Your task to perform on an android device: Add "macbook pro 15 inch" to the cart on walmart, then select checkout. Image 0: 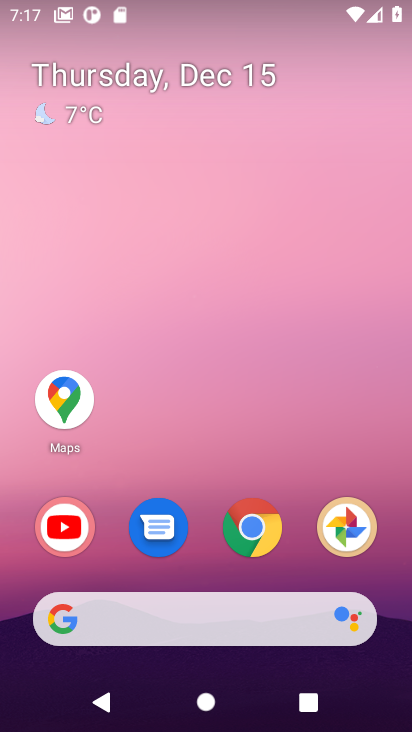
Step 0: click (255, 548)
Your task to perform on an android device: Add "macbook pro 15 inch" to the cart on walmart, then select checkout. Image 1: 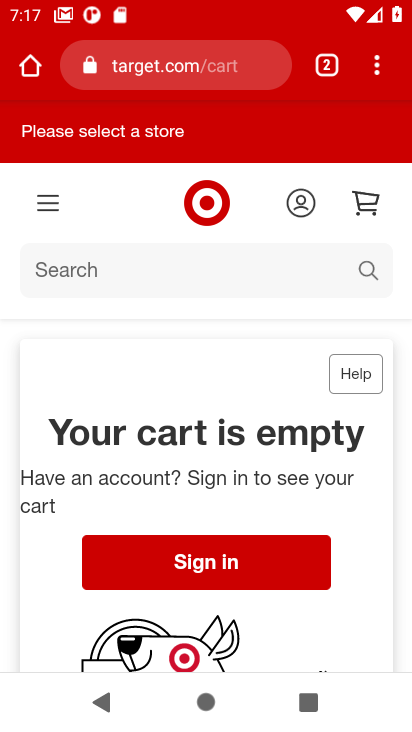
Step 1: click (193, 85)
Your task to perform on an android device: Add "macbook pro 15 inch" to the cart on walmart, then select checkout. Image 2: 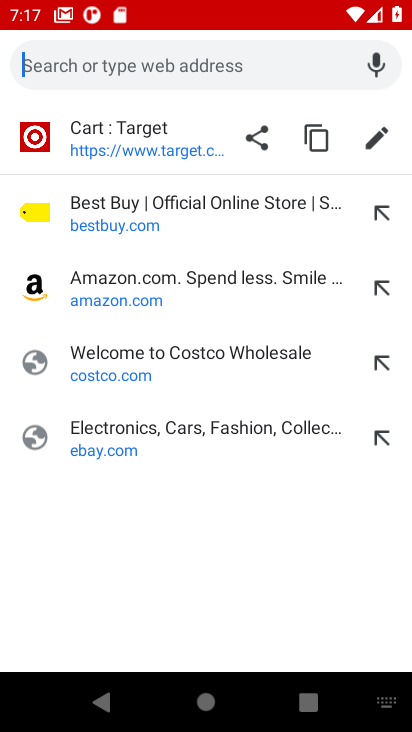
Step 2: type "walmart"
Your task to perform on an android device: Add "macbook pro 15 inch" to the cart on walmart, then select checkout. Image 3: 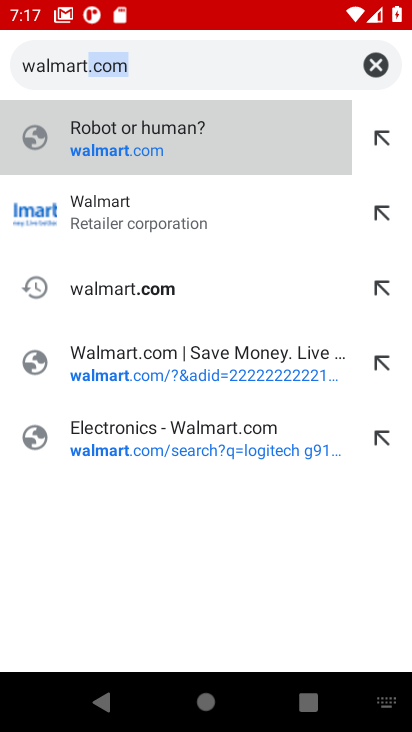
Step 3: click (134, 213)
Your task to perform on an android device: Add "macbook pro 15 inch" to the cart on walmart, then select checkout. Image 4: 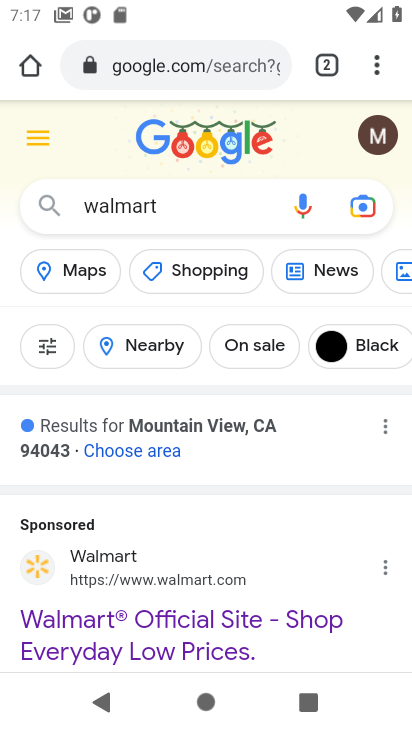
Step 4: click (183, 612)
Your task to perform on an android device: Add "macbook pro 15 inch" to the cart on walmart, then select checkout. Image 5: 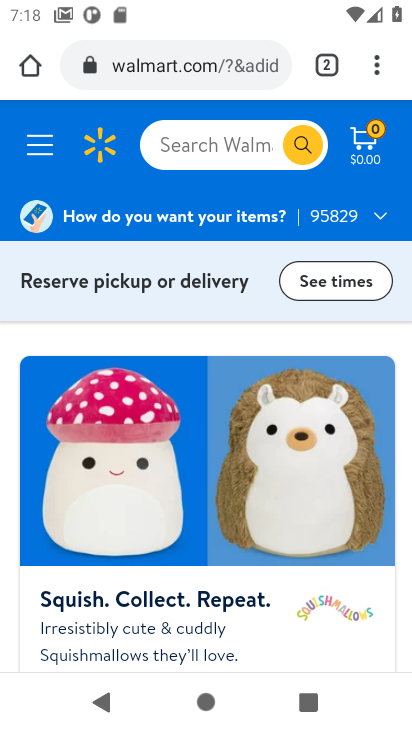
Step 5: click (209, 139)
Your task to perform on an android device: Add "macbook pro 15 inch" to the cart on walmart, then select checkout. Image 6: 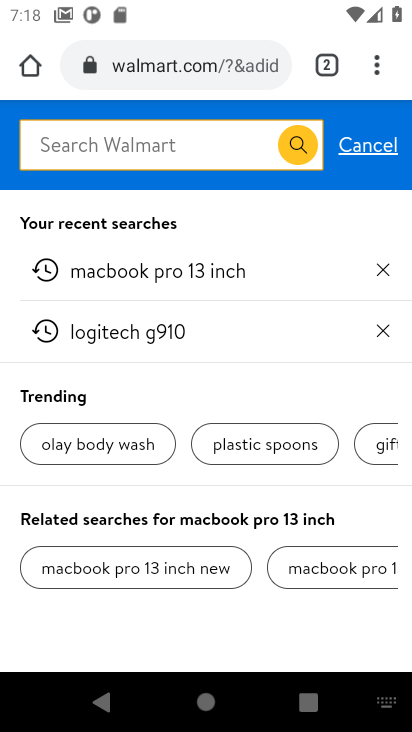
Step 6: task complete